Your task to perform on an android device: turn off data saver in the chrome app Image 0: 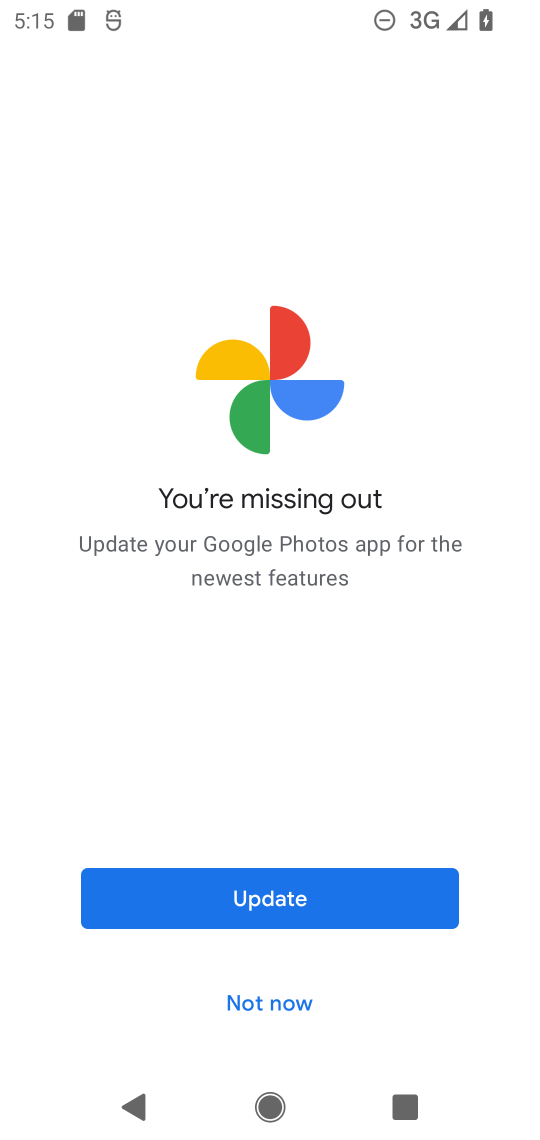
Step 0: press back button
Your task to perform on an android device: turn off data saver in the chrome app Image 1: 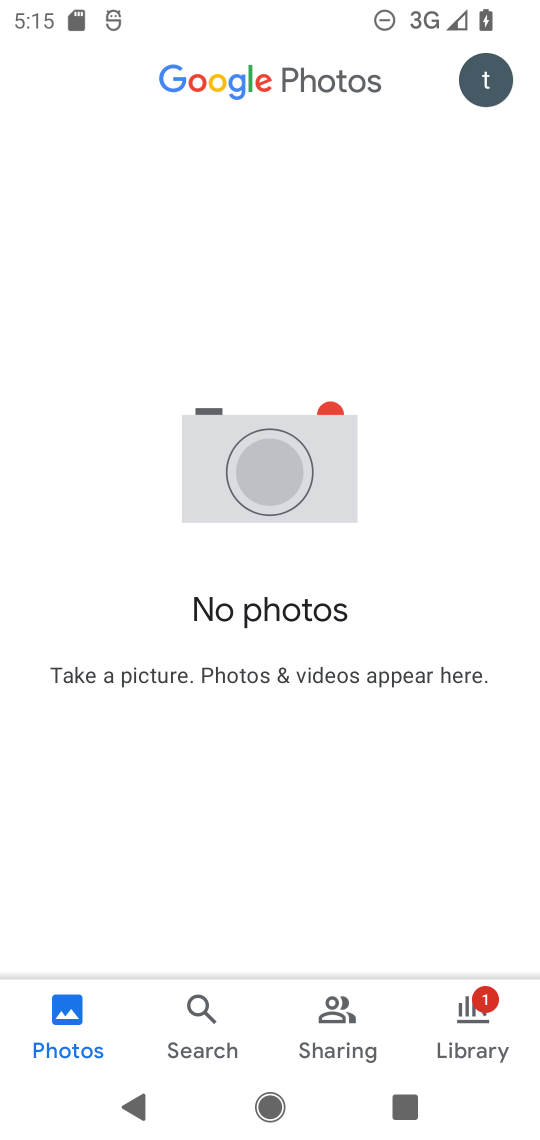
Step 1: press back button
Your task to perform on an android device: turn off data saver in the chrome app Image 2: 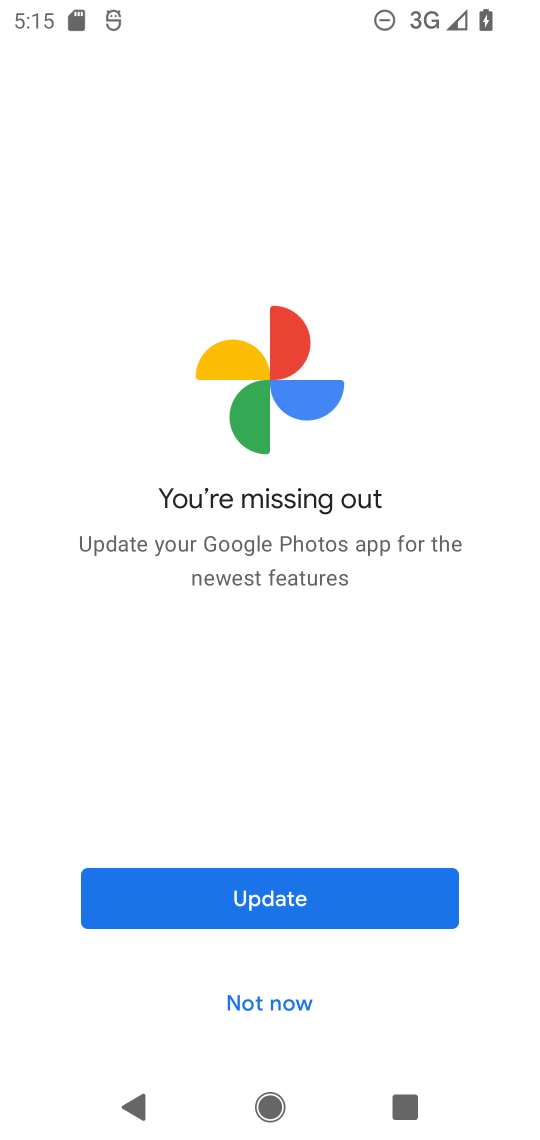
Step 2: press back button
Your task to perform on an android device: turn off data saver in the chrome app Image 3: 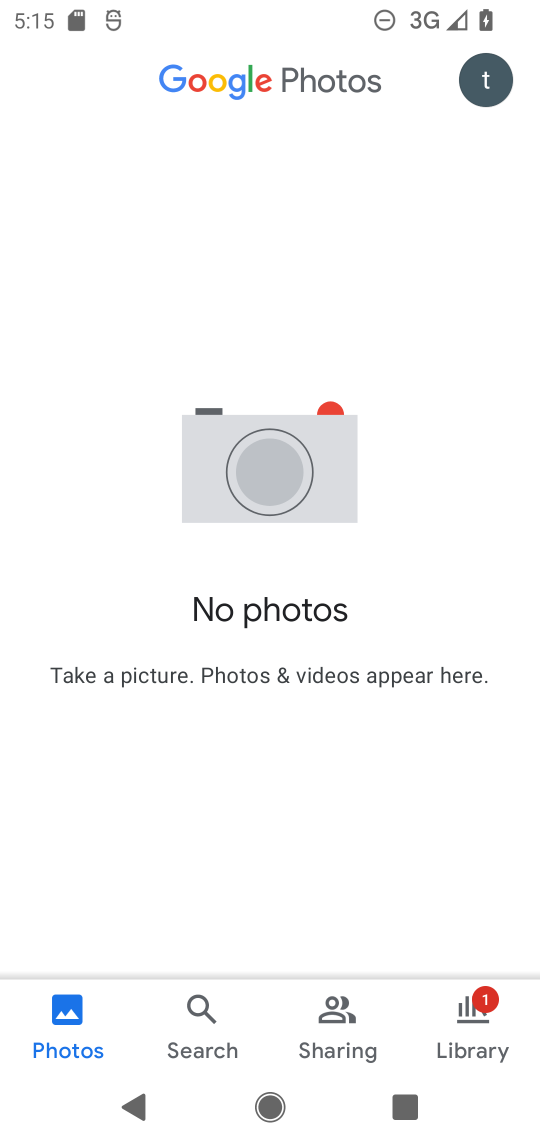
Step 3: press home button
Your task to perform on an android device: turn off data saver in the chrome app Image 4: 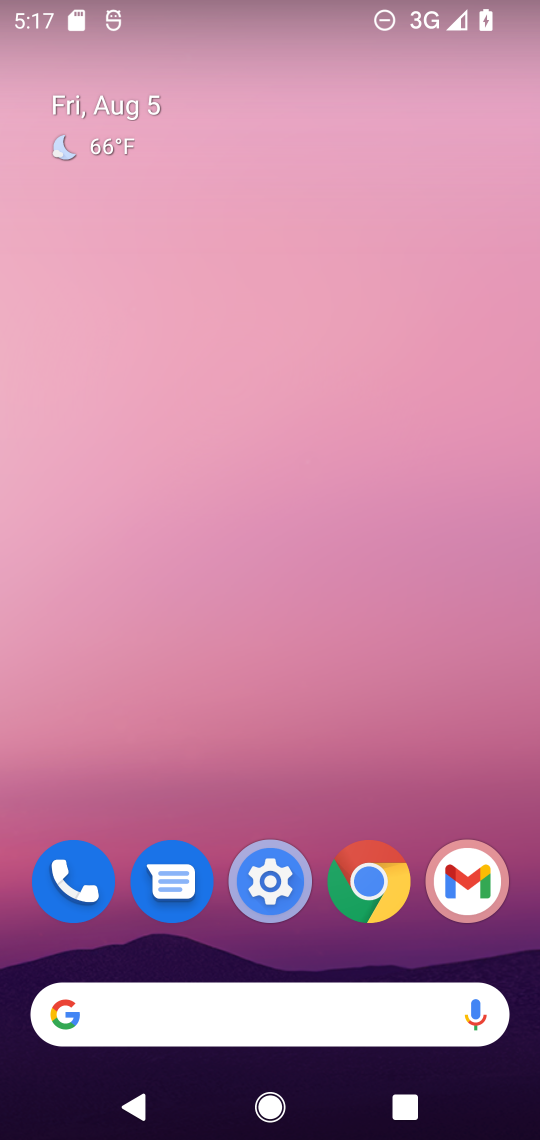
Step 4: drag from (427, 954) to (398, 33)
Your task to perform on an android device: turn off data saver in the chrome app Image 5: 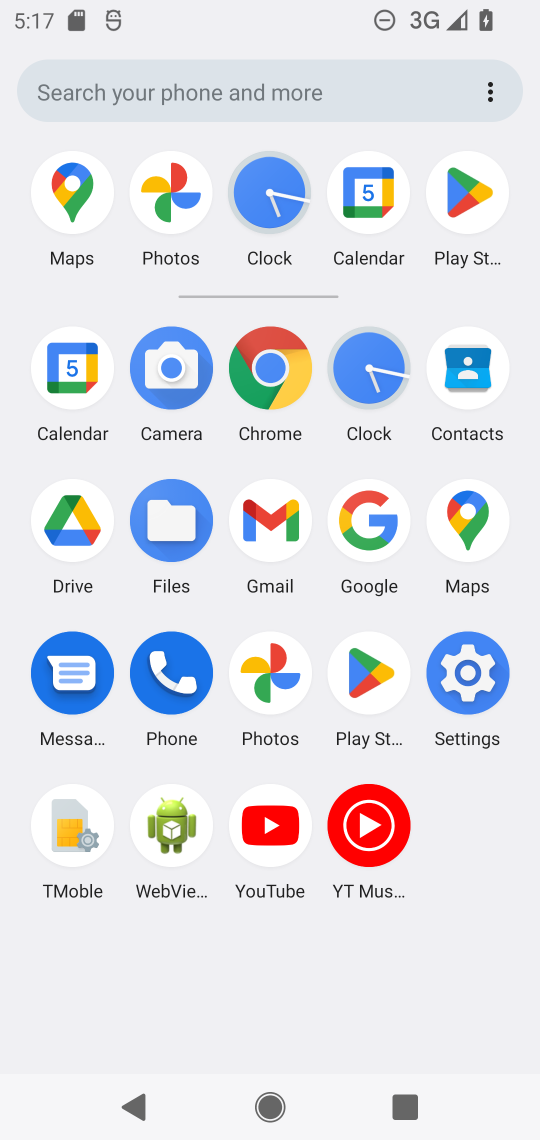
Step 5: click (293, 391)
Your task to perform on an android device: turn off data saver in the chrome app Image 6: 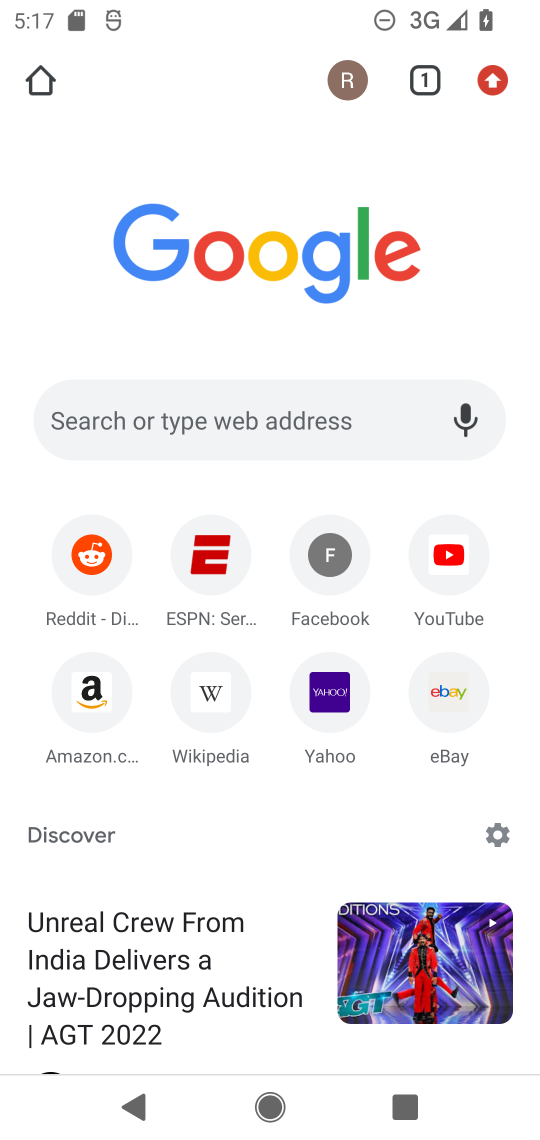
Step 6: click (502, 79)
Your task to perform on an android device: turn off data saver in the chrome app Image 7: 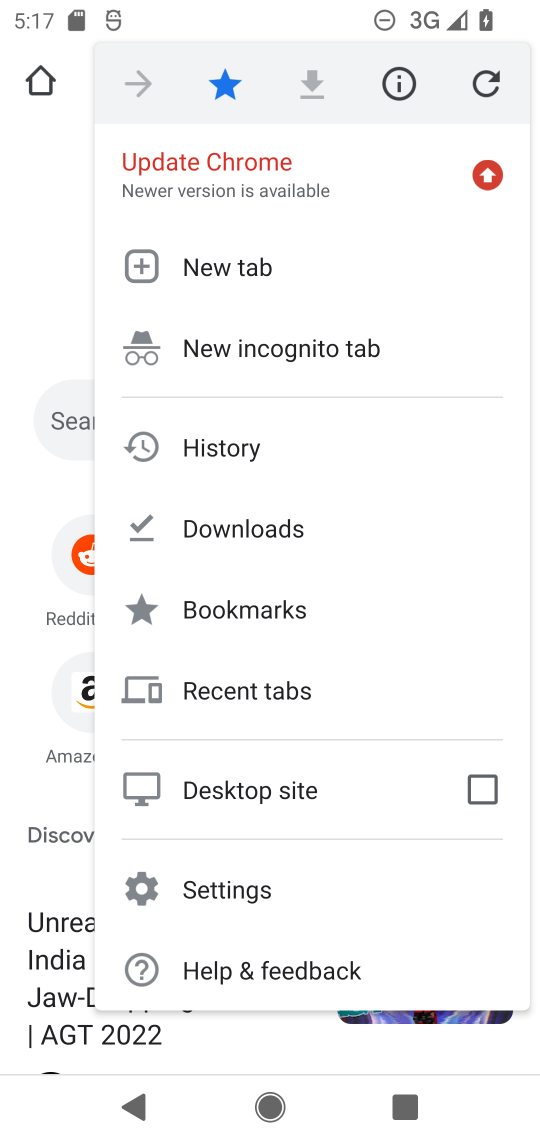
Step 7: click (262, 896)
Your task to perform on an android device: turn off data saver in the chrome app Image 8: 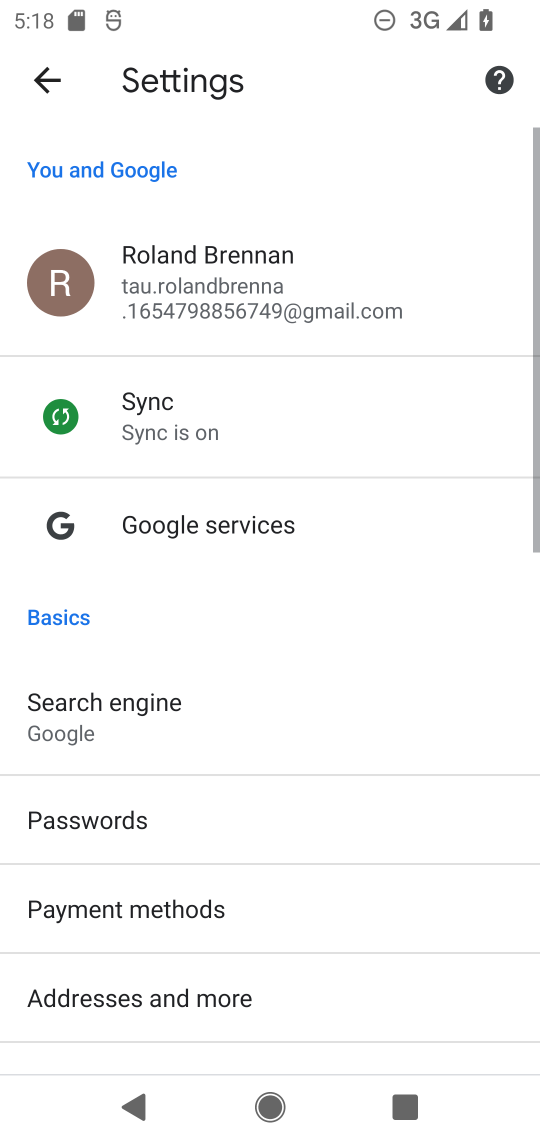
Step 8: drag from (231, 963) to (206, 15)
Your task to perform on an android device: turn off data saver in the chrome app Image 9: 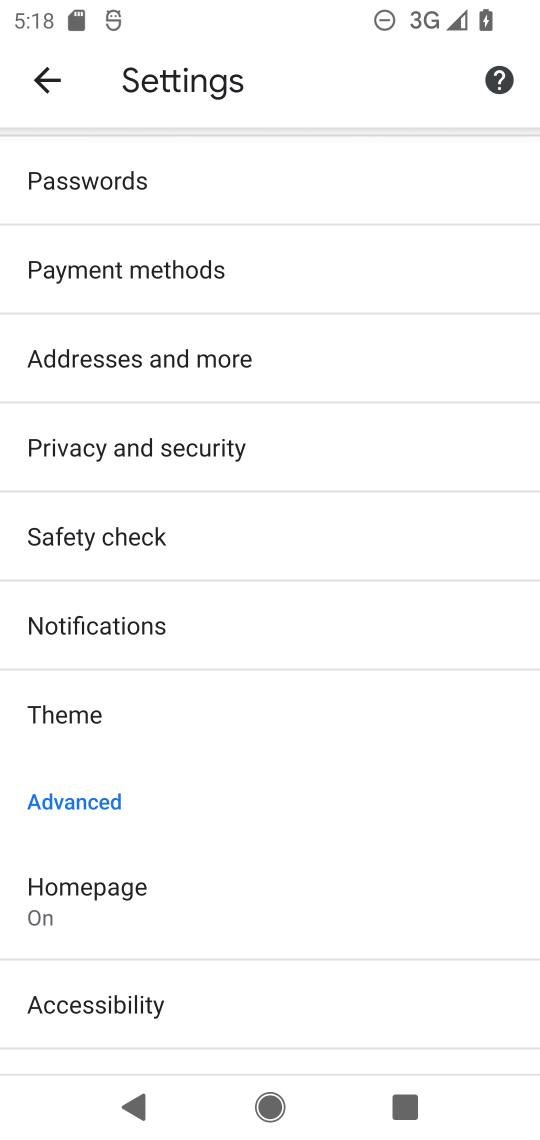
Step 9: drag from (189, 943) to (198, 79)
Your task to perform on an android device: turn off data saver in the chrome app Image 10: 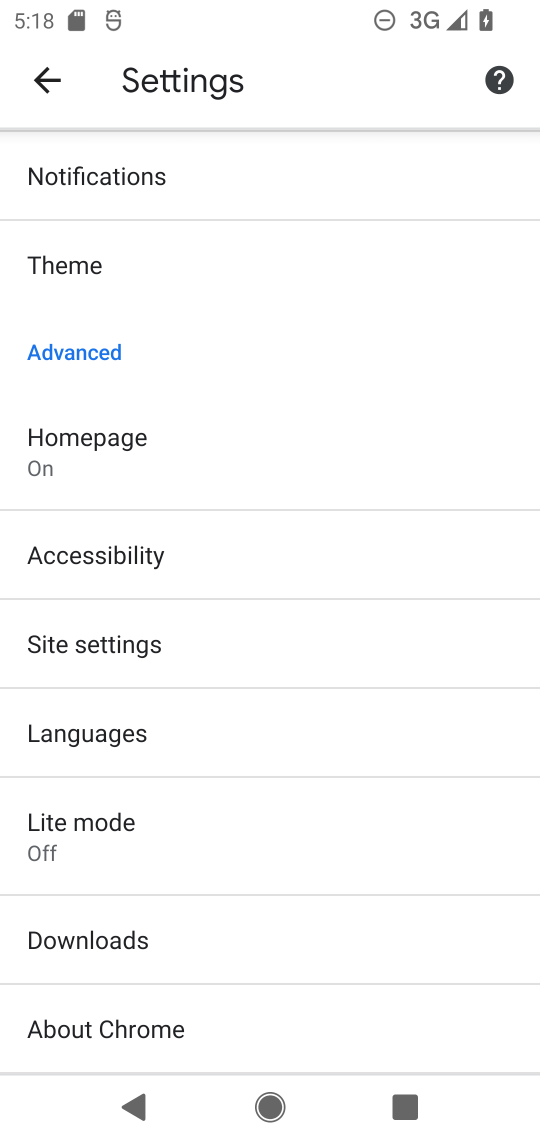
Step 10: click (112, 845)
Your task to perform on an android device: turn off data saver in the chrome app Image 11: 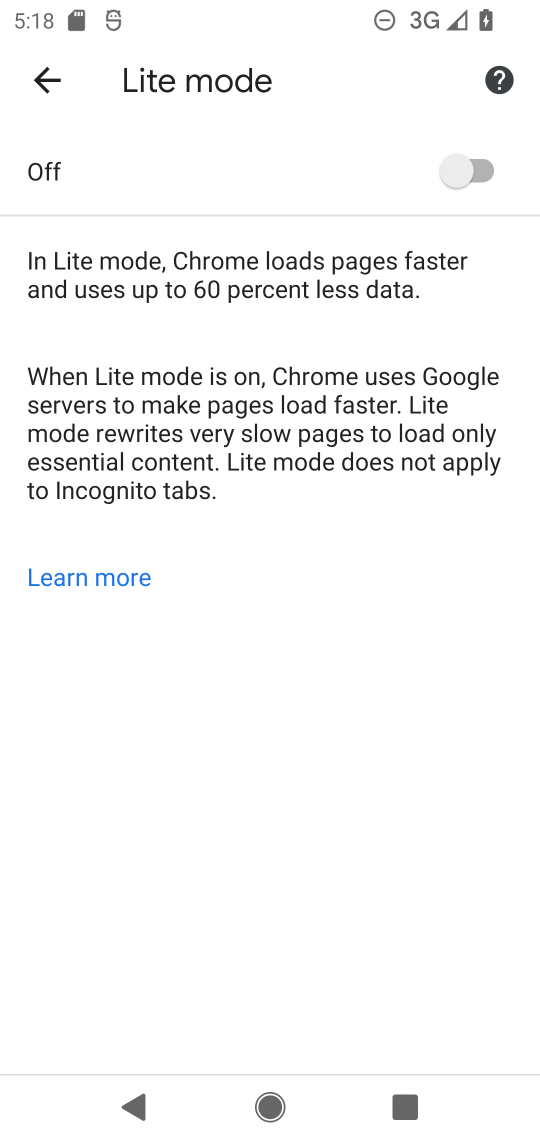
Step 11: task complete